Your task to perform on an android device: turn on airplane mode Image 0: 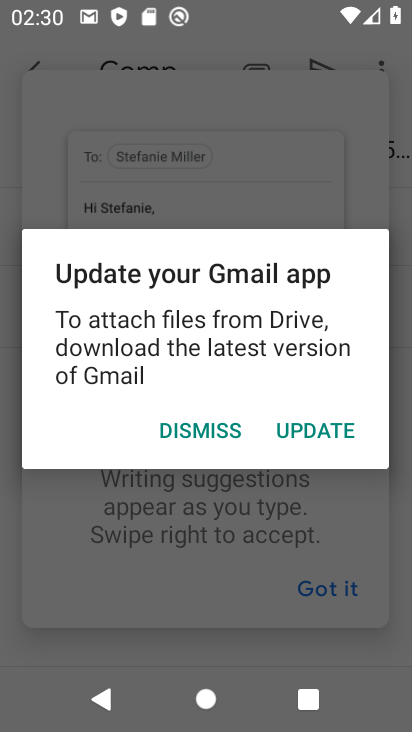
Step 0: press home button
Your task to perform on an android device: turn on airplane mode Image 1: 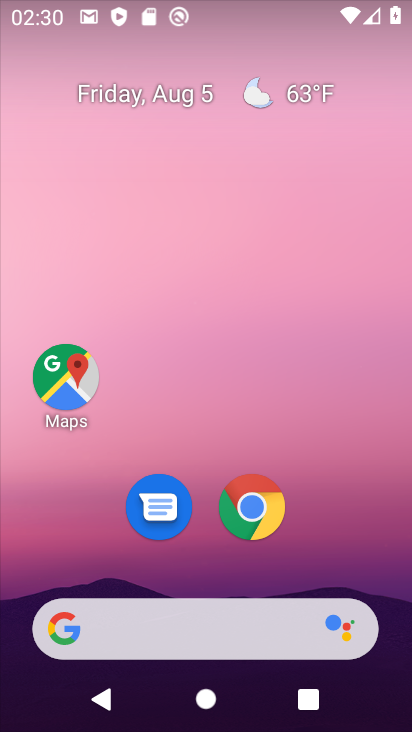
Step 1: drag from (220, 505) to (264, 35)
Your task to perform on an android device: turn on airplane mode Image 2: 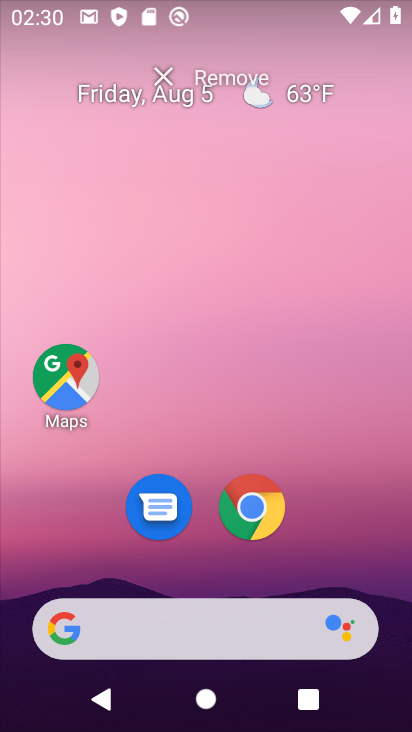
Step 2: click (250, 517)
Your task to perform on an android device: turn on airplane mode Image 3: 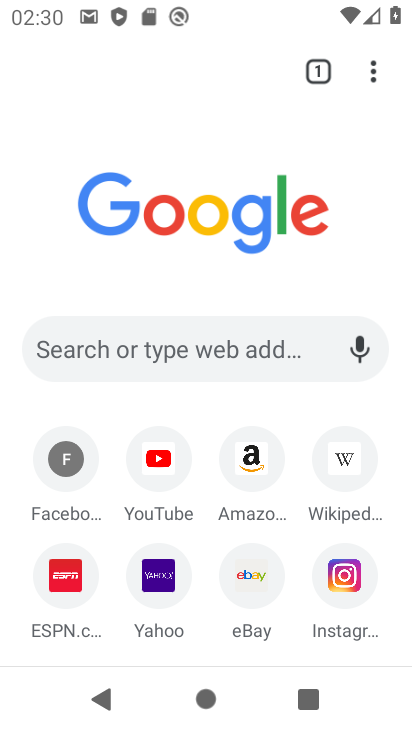
Step 3: press home button
Your task to perform on an android device: turn on airplane mode Image 4: 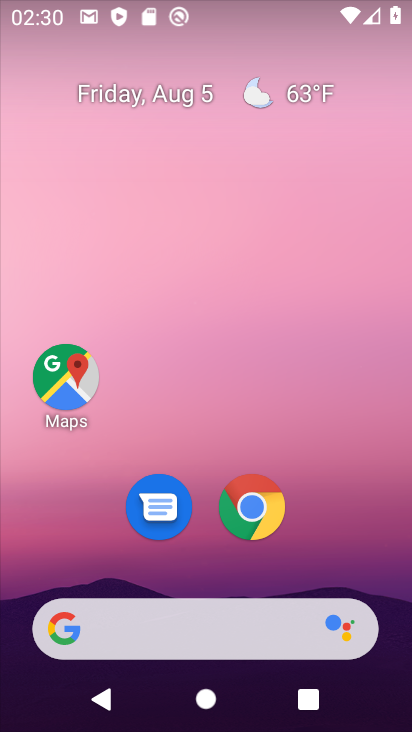
Step 4: drag from (212, 551) to (218, 12)
Your task to perform on an android device: turn on airplane mode Image 5: 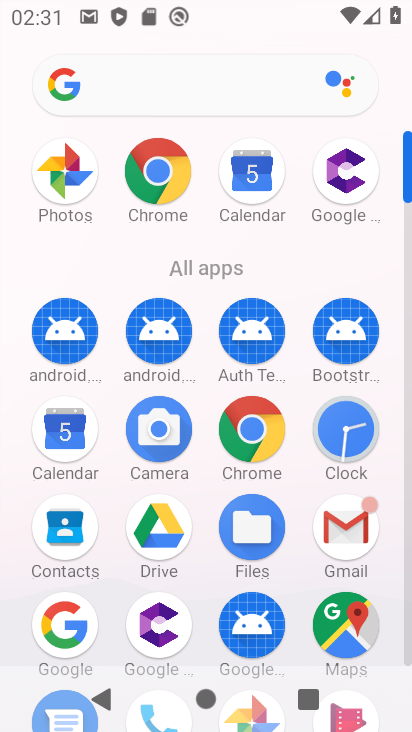
Step 5: click (346, 543)
Your task to perform on an android device: turn on airplane mode Image 6: 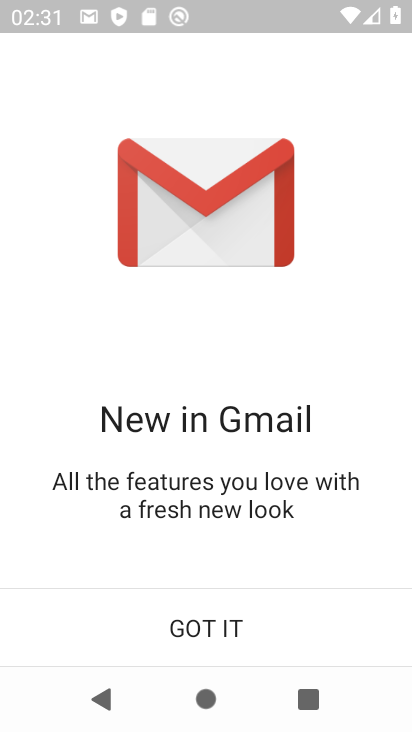
Step 6: click (260, 622)
Your task to perform on an android device: turn on airplane mode Image 7: 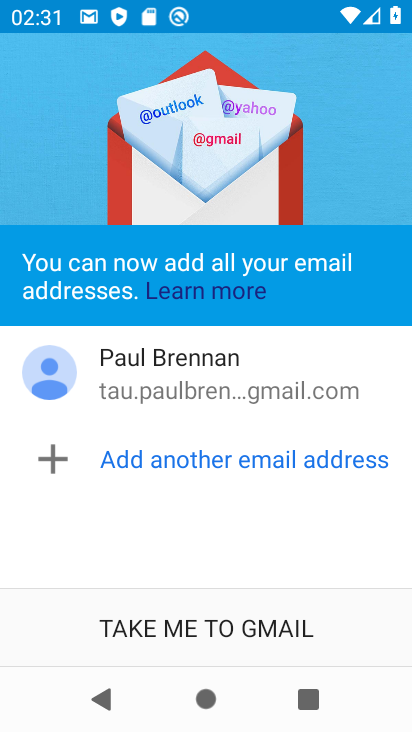
Step 7: click (235, 624)
Your task to perform on an android device: turn on airplane mode Image 8: 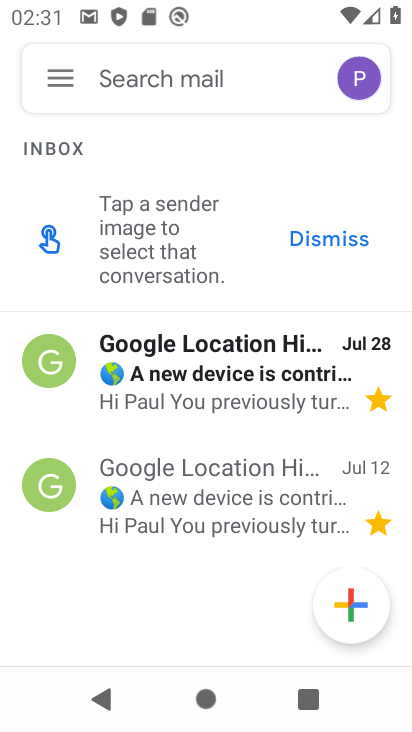
Step 8: click (35, 486)
Your task to perform on an android device: turn on airplane mode Image 9: 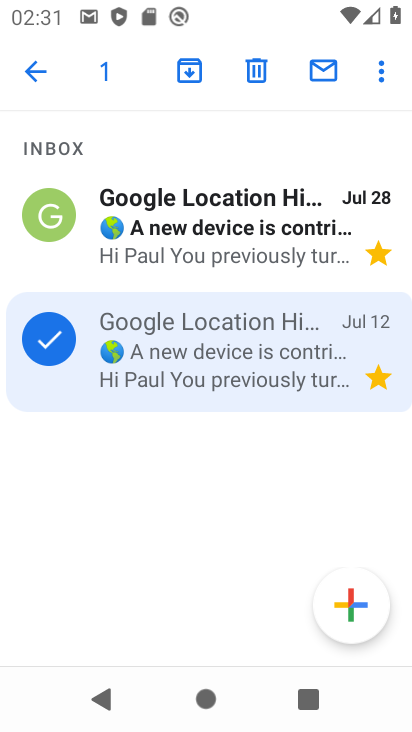
Step 9: press home button
Your task to perform on an android device: turn on airplane mode Image 10: 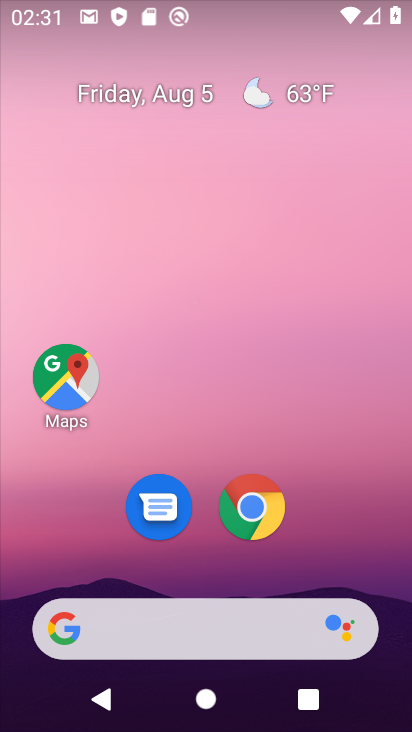
Step 10: drag from (202, 560) to (216, 4)
Your task to perform on an android device: turn on airplane mode Image 11: 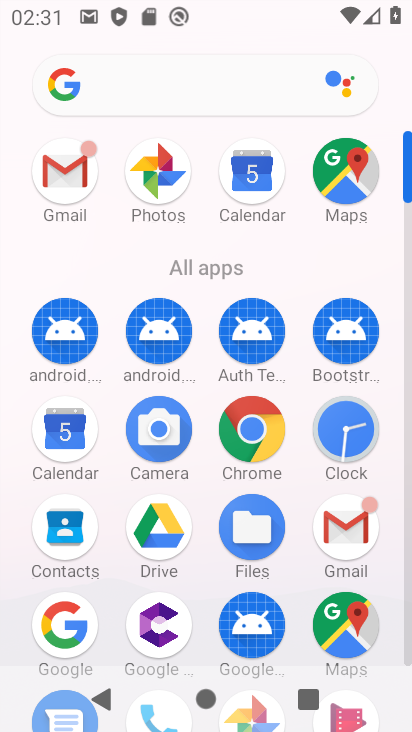
Step 11: drag from (201, 599) to (215, 179)
Your task to perform on an android device: turn on airplane mode Image 12: 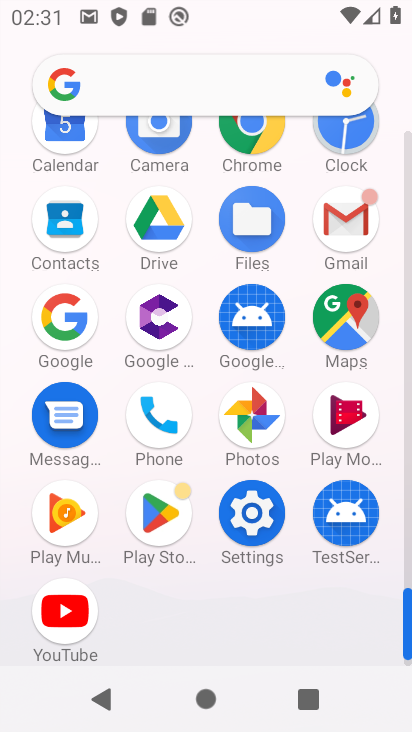
Step 12: click (255, 518)
Your task to perform on an android device: turn on airplane mode Image 13: 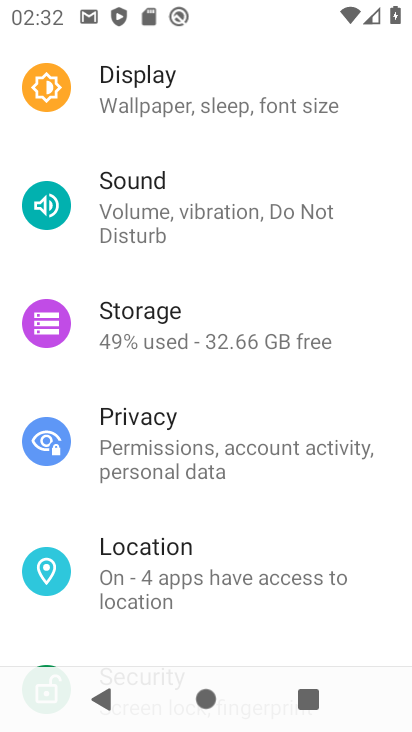
Step 13: drag from (195, 242) to (185, 729)
Your task to perform on an android device: turn on airplane mode Image 14: 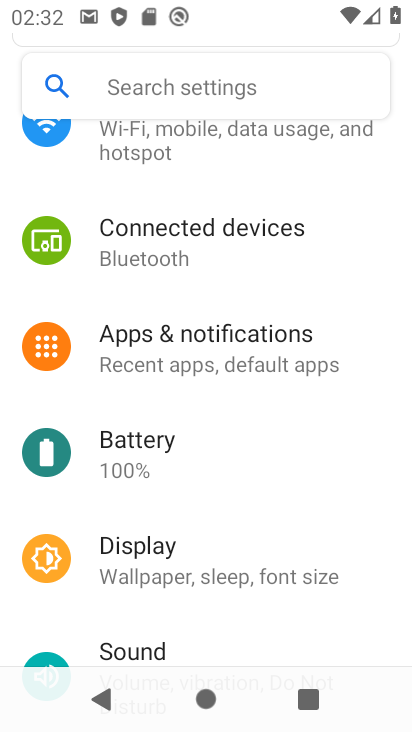
Step 14: drag from (201, 220) to (204, 622)
Your task to perform on an android device: turn on airplane mode Image 15: 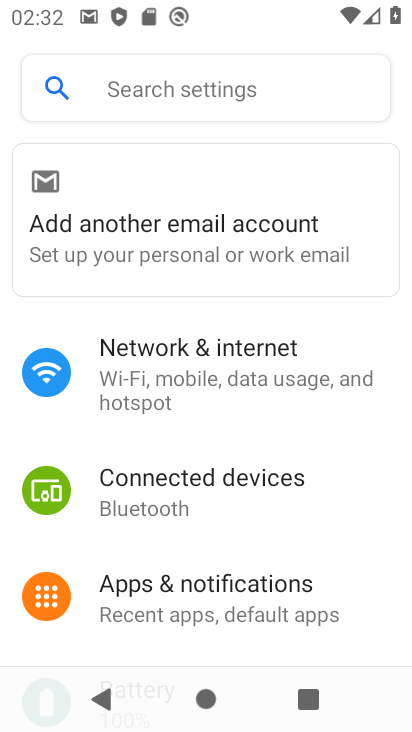
Step 15: click (173, 386)
Your task to perform on an android device: turn on airplane mode Image 16: 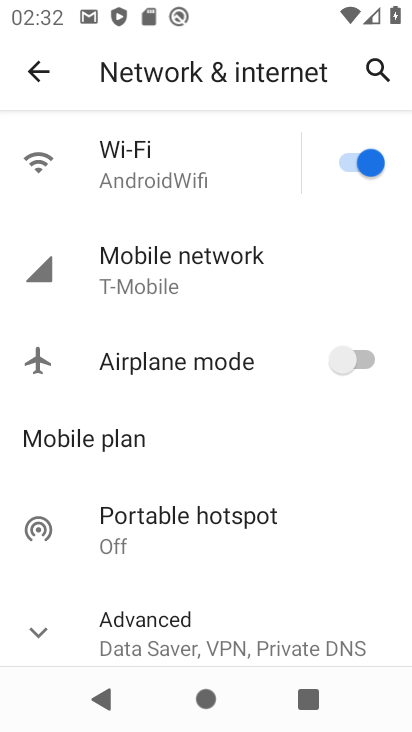
Step 16: click (387, 361)
Your task to perform on an android device: turn on airplane mode Image 17: 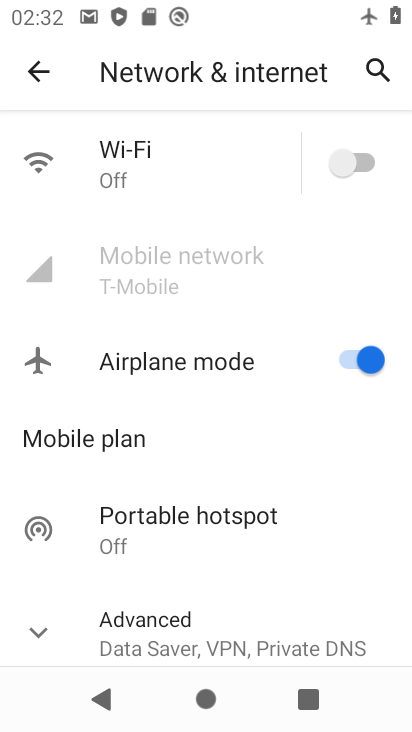
Step 17: task complete